Your task to perform on an android device: Open Reddit.com Image 0: 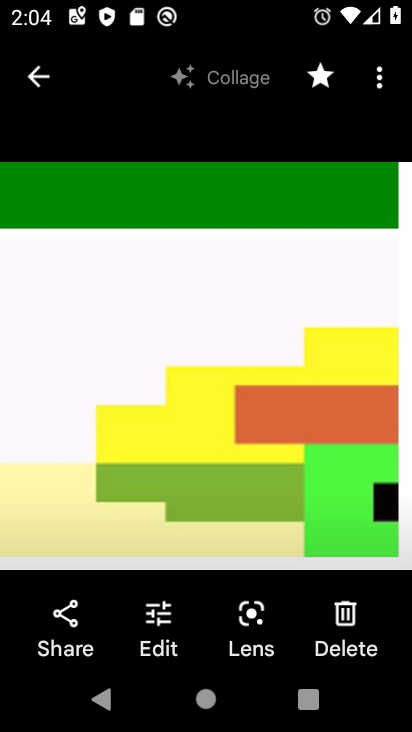
Step 0: press home button
Your task to perform on an android device: Open Reddit.com Image 1: 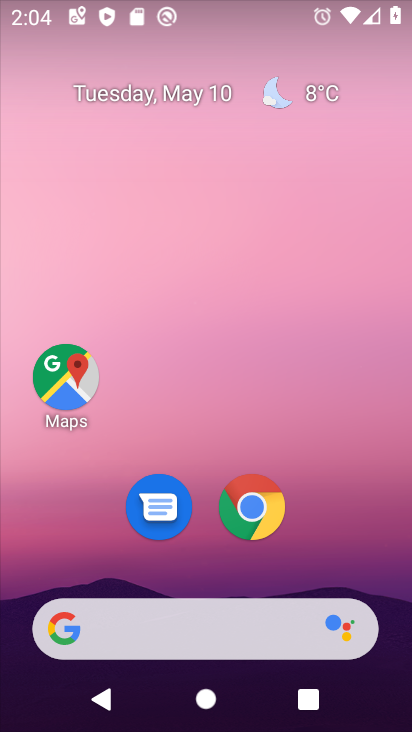
Step 1: click (251, 507)
Your task to perform on an android device: Open Reddit.com Image 2: 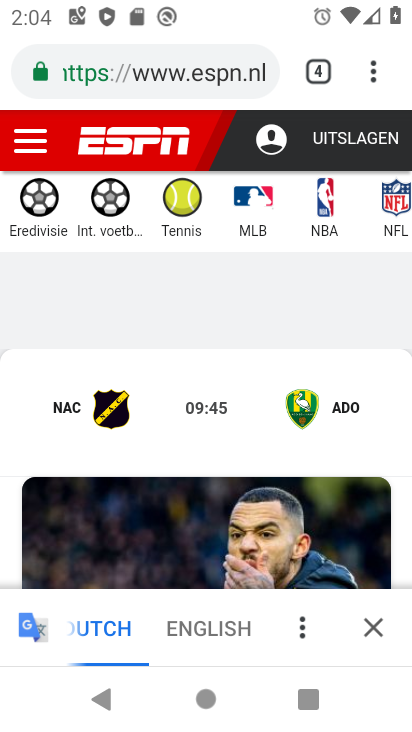
Step 2: click (375, 76)
Your task to perform on an android device: Open Reddit.com Image 3: 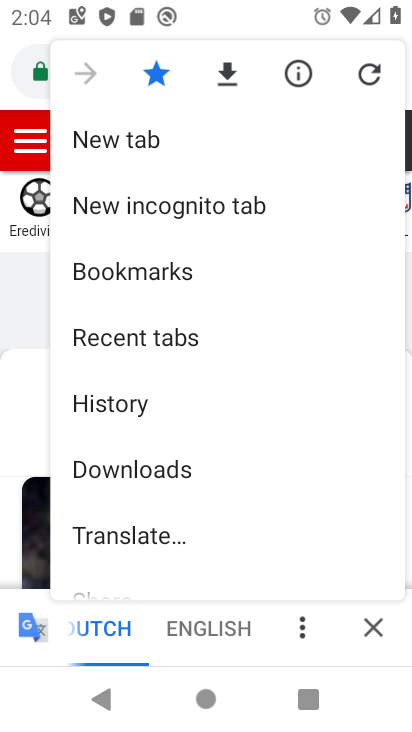
Step 3: click (146, 136)
Your task to perform on an android device: Open Reddit.com Image 4: 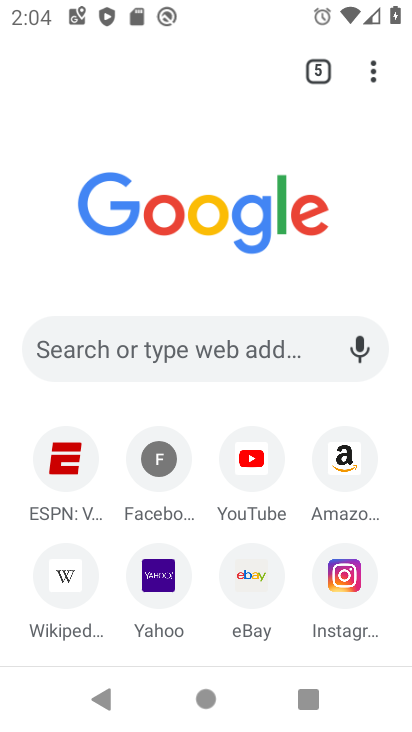
Step 4: click (240, 349)
Your task to perform on an android device: Open Reddit.com Image 5: 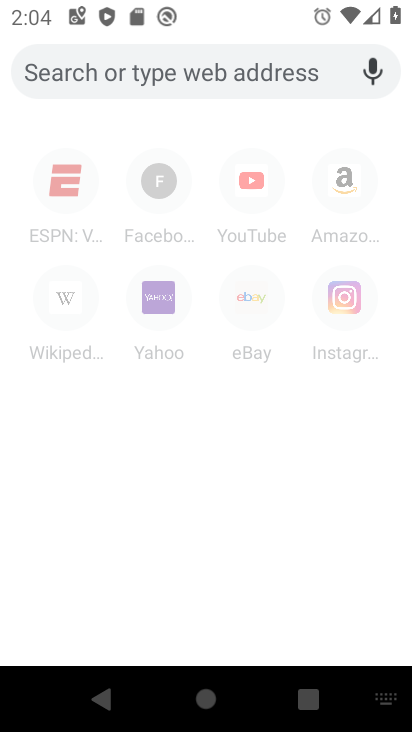
Step 5: type "Reddit.com"
Your task to perform on an android device: Open Reddit.com Image 6: 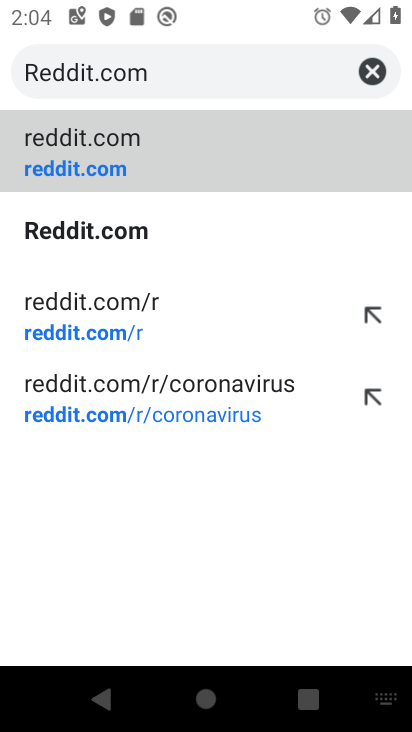
Step 6: click (83, 146)
Your task to perform on an android device: Open Reddit.com Image 7: 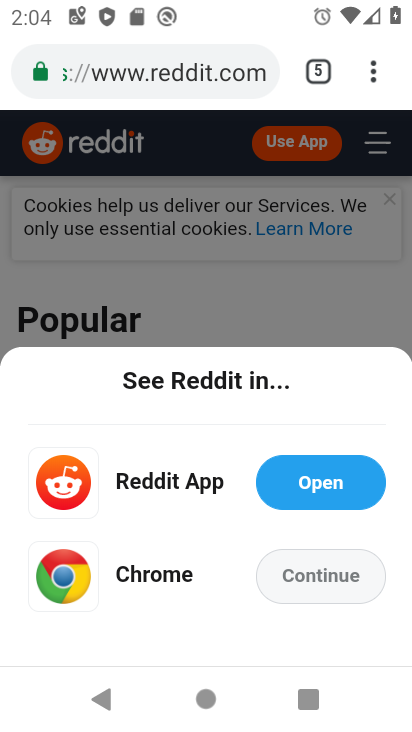
Step 7: task complete